Your task to perform on an android device: see creations saved in the google photos Image 0: 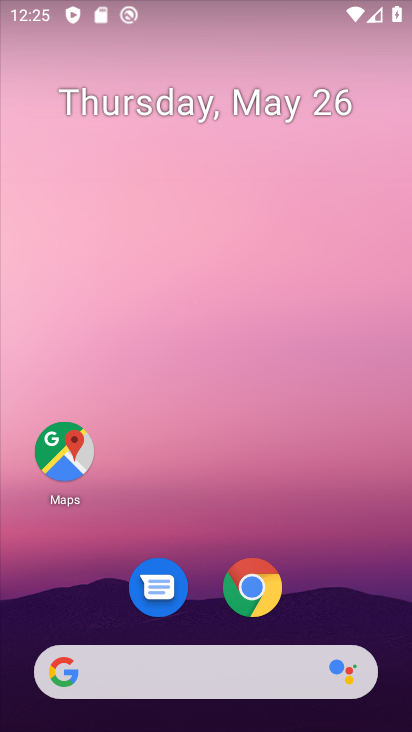
Step 0: drag from (369, 620) to (381, 305)
Your task to perform on an android device: see creations saved in the google photos Image 1: 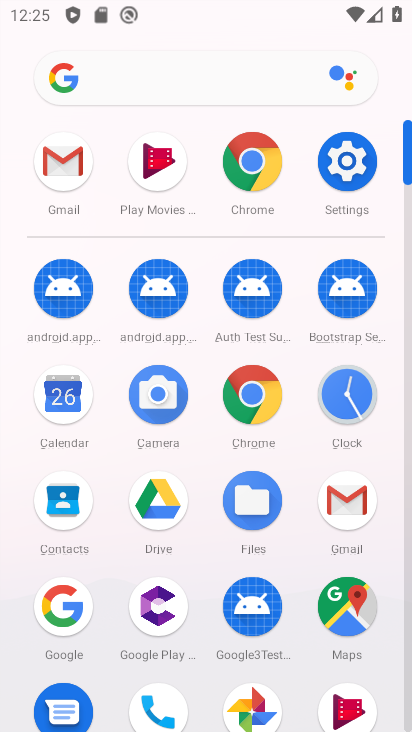
Step 1: drag from (387, 673) to (377, 432)
Your task to perform on an android device: see creations saved in the google photos Image 2: 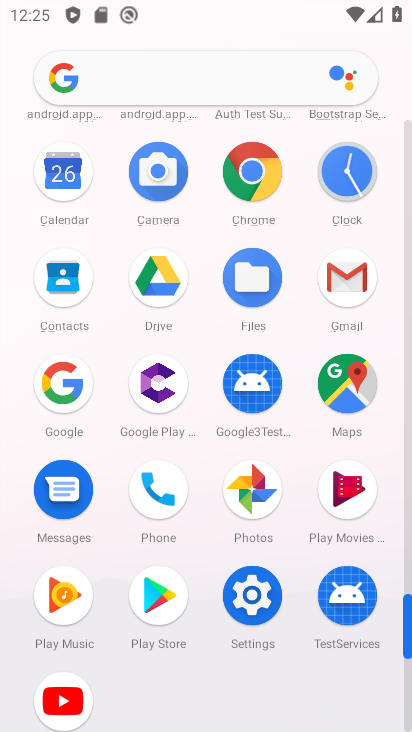
Step 2: click (260, 503)
Your task to perform on an android device: see creations saved in the google photos Image 3: 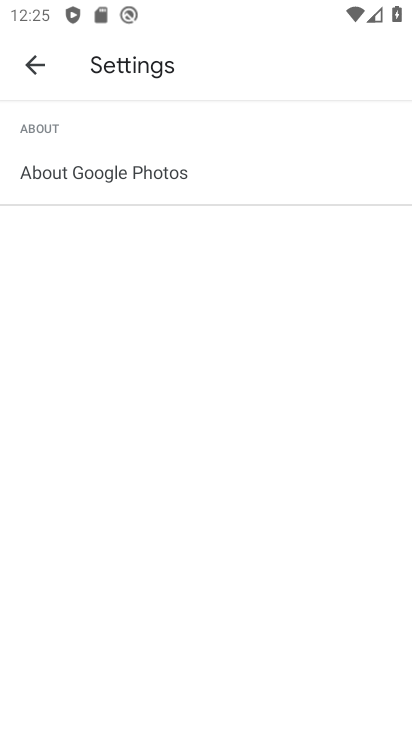
Step 3: click (36, 68)
Your task to perform on an android device: see creations saved in the google photos Image 4: 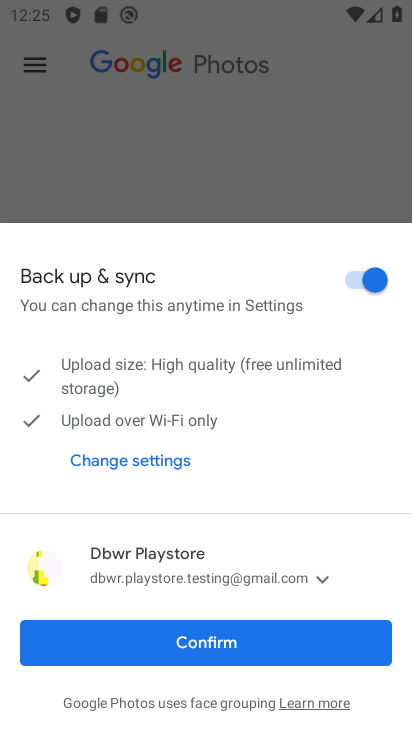
Step 4: click (218, 636)
Your task to perform on an android device: see creations saved in the google photos Image 5: 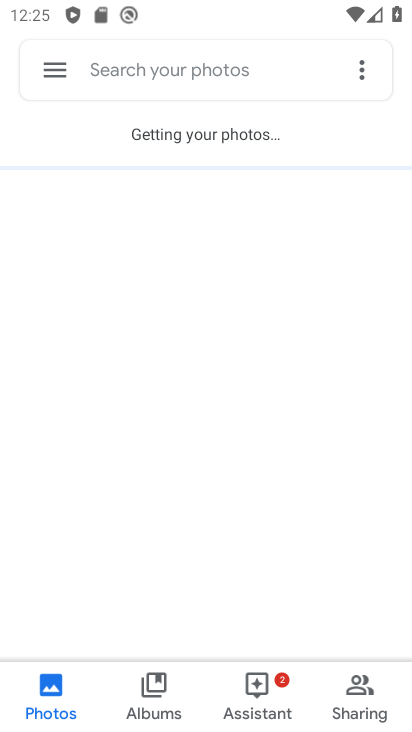
Step 5: click (247, 76)
Your task to perform on an android device: see creations saved in the google photos Image 6: 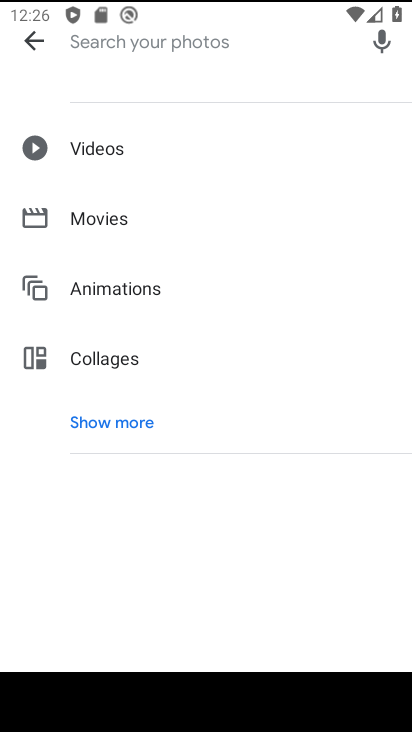
Step 6: click (155, 422)
Your task to perform on an android device: see creations saved in the google photos Image 7: 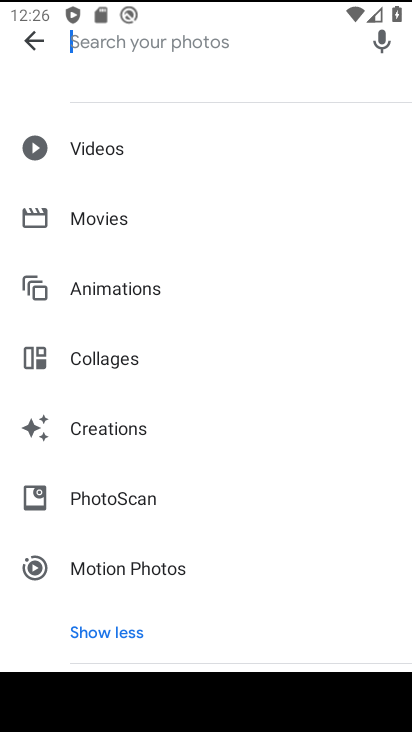
Step 7: click (138, 430)
Your task to perform on an android device: see creations saved in the google photos Image 8: 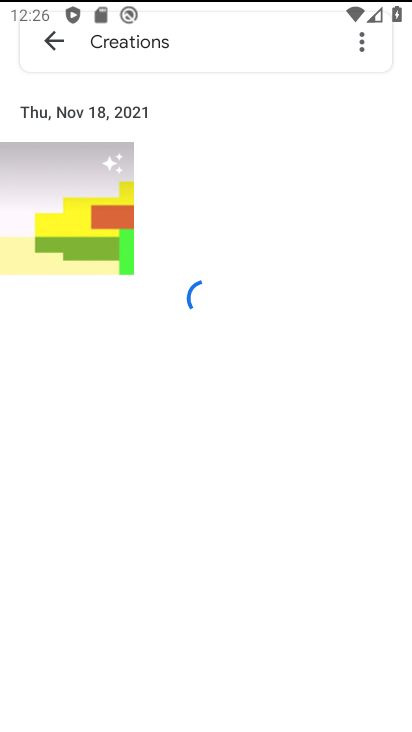
Step 8: task complete